Your task to perform on an android device: Open wifi settings Image 0: 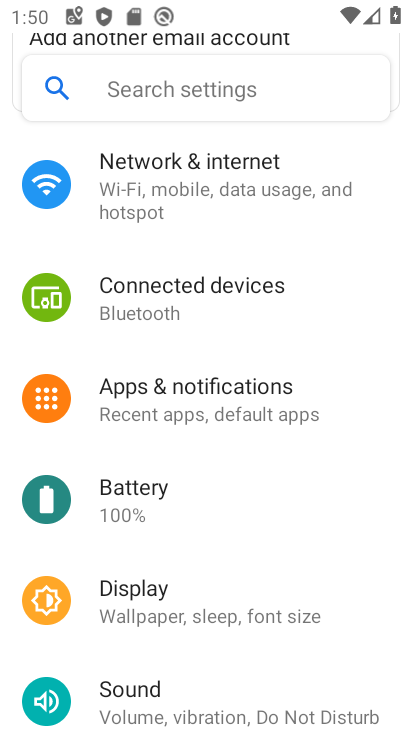
Step 0: press home button
Your task to perform on an android device: Open wifi settings Image 1: 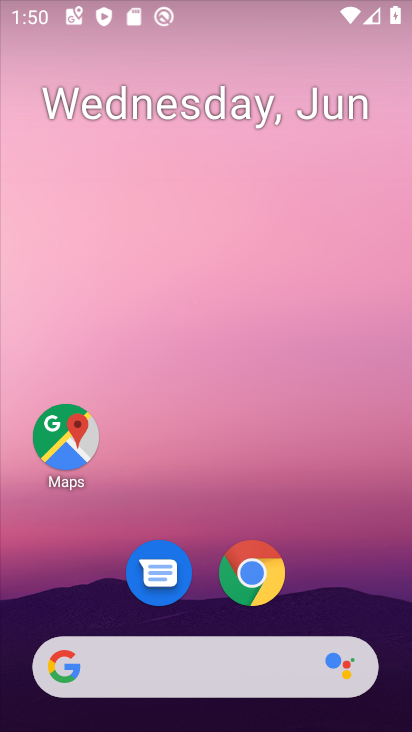
Step 1: drag from (385, 601) to (392, 136)
Your task to perform on an android device: Open wifi settings Image 2: 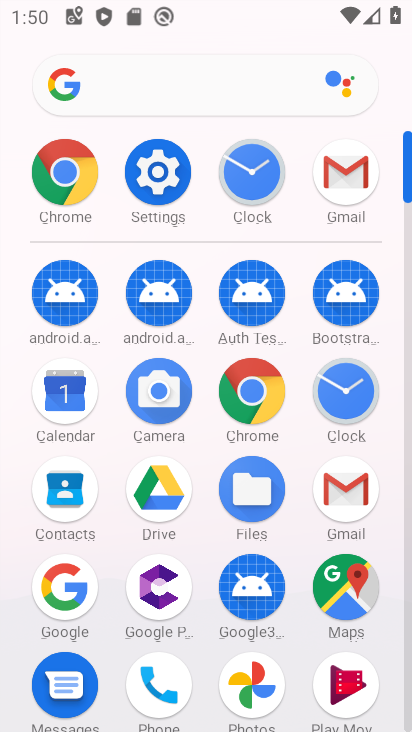
Step 2: click (162, 178)
Your task to perform on an android device: Open wifi settings Image 3: 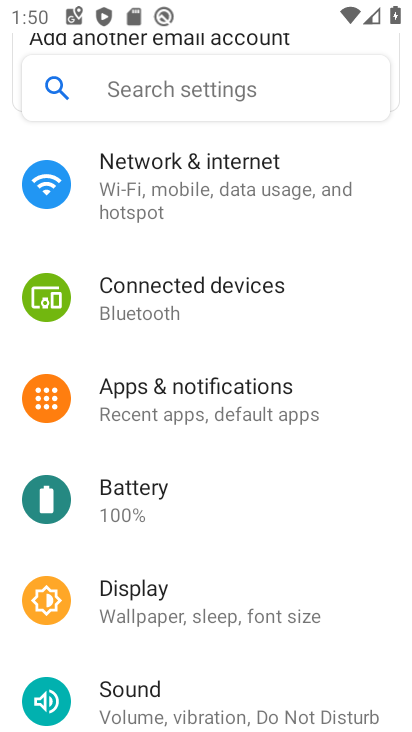
Step 3: click (165, 176)
Your task to perform on an android device: Open wifi settings Image 4: 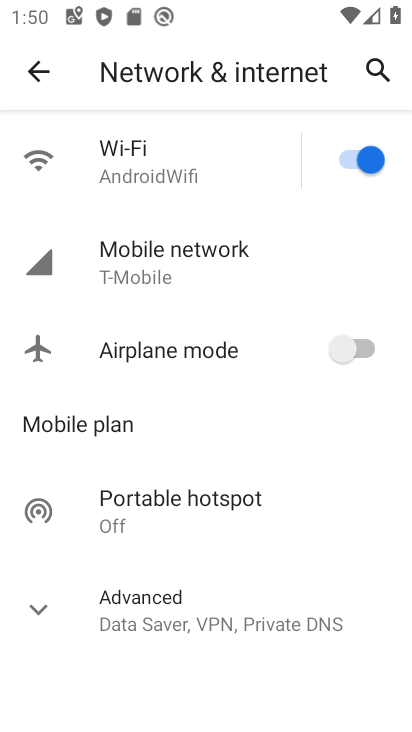
Step 4: task complete